Your task to perform on an android device: Go to Google maps Image 0: 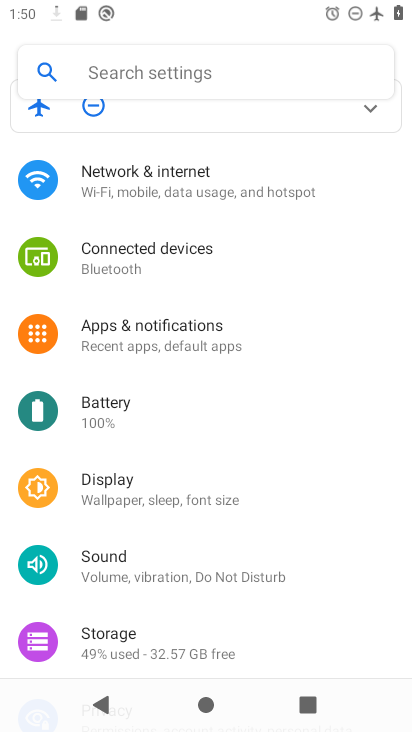
Step 0: press home button
Your task to perform on an android device: Go to Google maps Image 1: 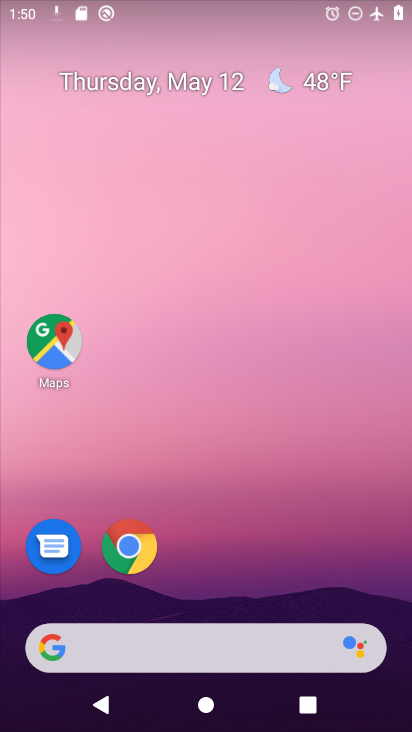
Step 1: click (57, 349)
Your task to perform on an android device: Go to Google maps Image 2: 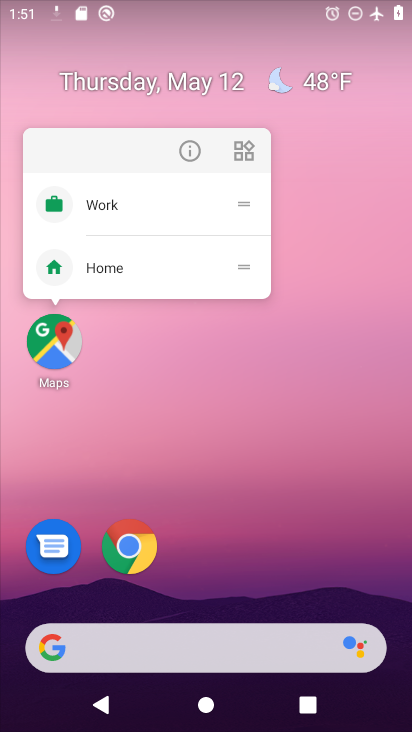
Step 2: click (56, 355)
Your task to perform on an android device: Go to Google maps Image 3: 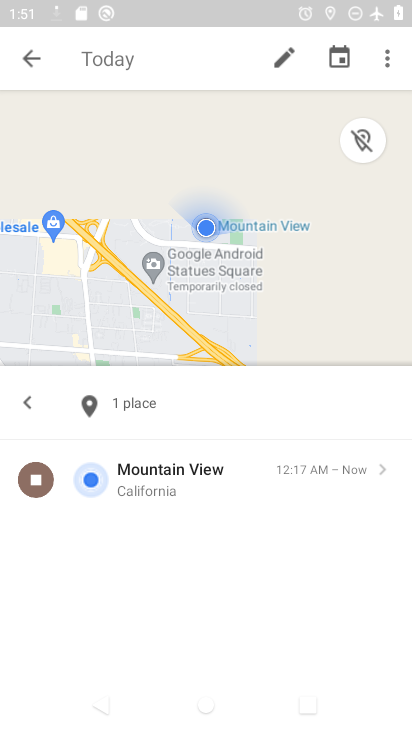
Step 3: click (38, 67)
Your task to perform on an android device: Go to Google maps Image 4: 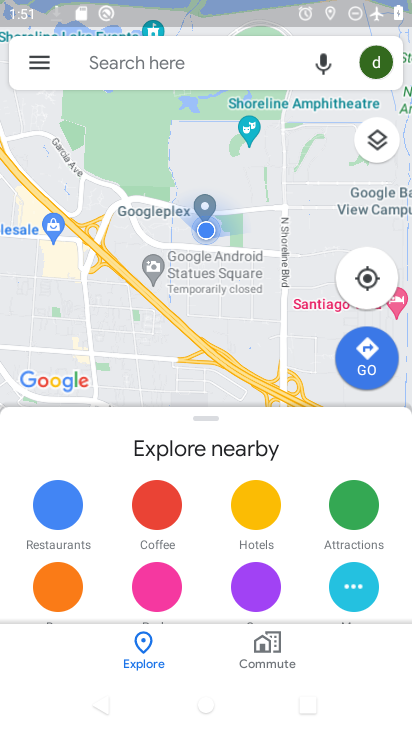
Step 4: task complete